Your task to perform on an android device: Open the map Image 0: 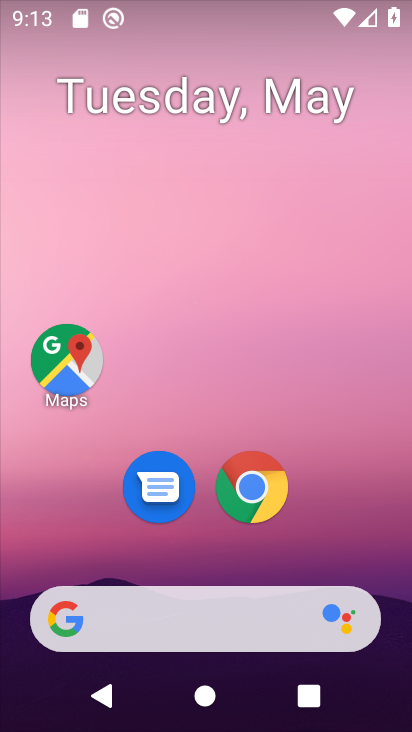
Step 0: press home button
Your task to perform on an android device: Open the map Image 1: 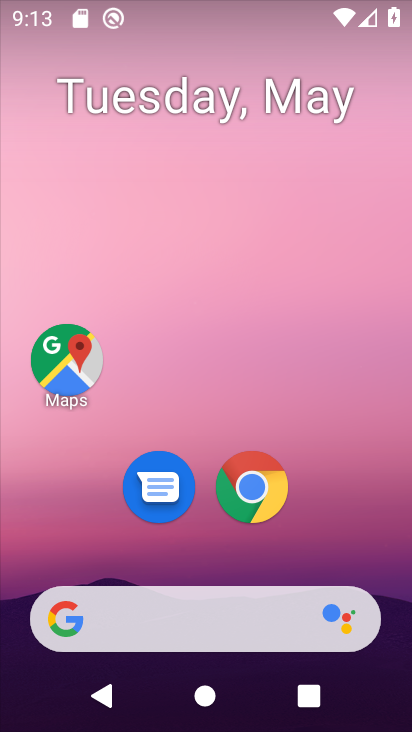
Step 1: click (62, 377)
Your task to perform on an android device: Open the map Image 2: 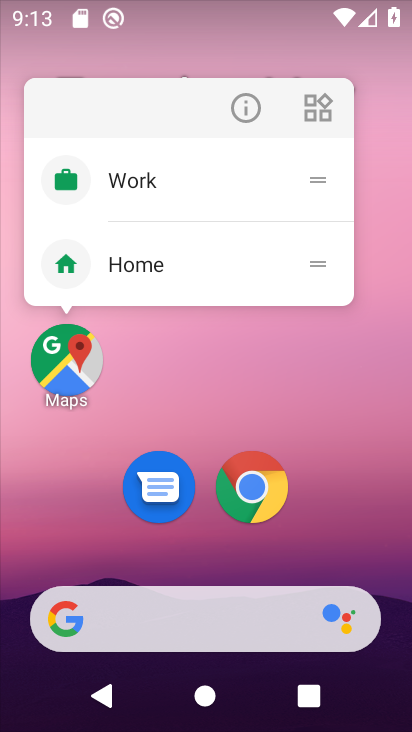
Step 2: click (66, 370)
Your task to perform on an android device: Open the map Image 3: 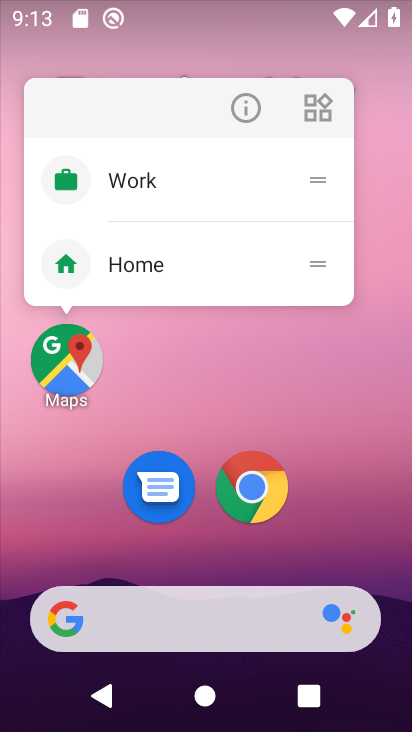
Step 3: click (63, 381)
Your task to perform on an android device: Open the map Image 4: 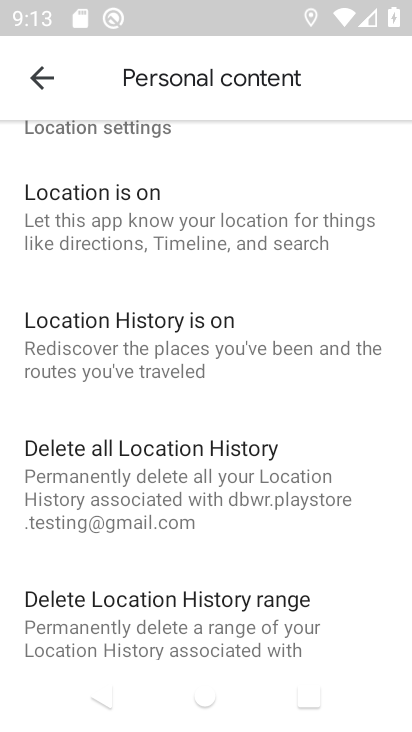
Step 4: click (52, 82)
Your task to perform on an android device: Open the map Image 5: 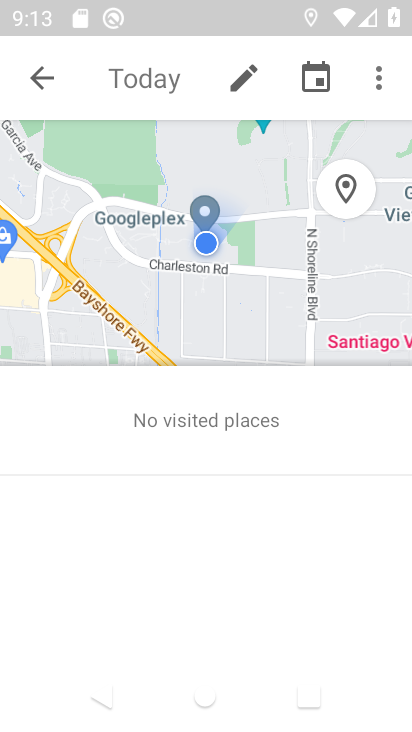
Step 5: click (43, 74)
Your task to perform on an android device: Open the map Image 6: 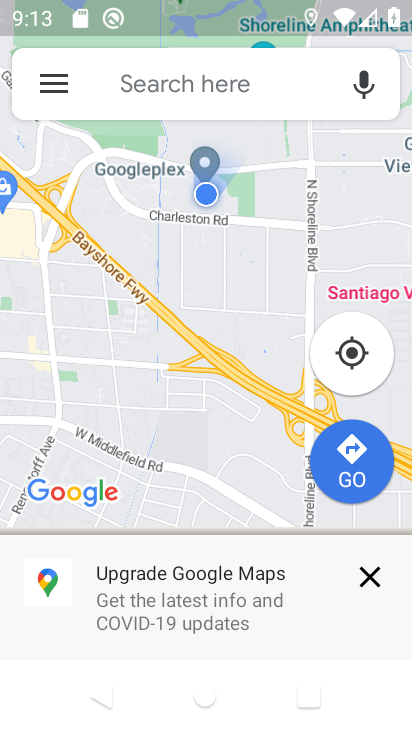
Step 6: click (370, 580)
Your task to perform on an android device: Open the map Image 7: 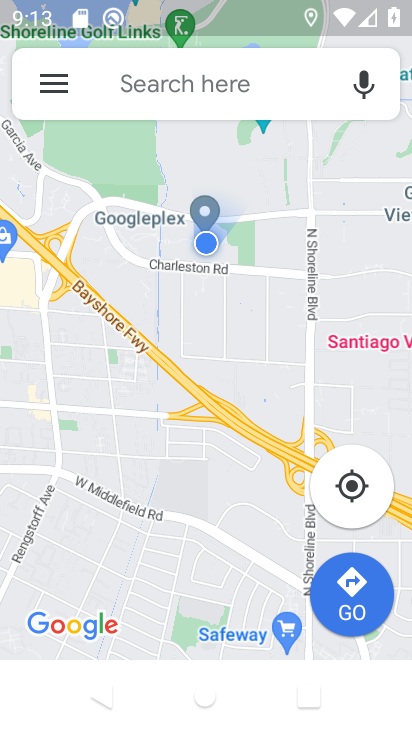
Step 7: task complete